Your task to perform on an android device: Find coffee shops on Maps Image 0: 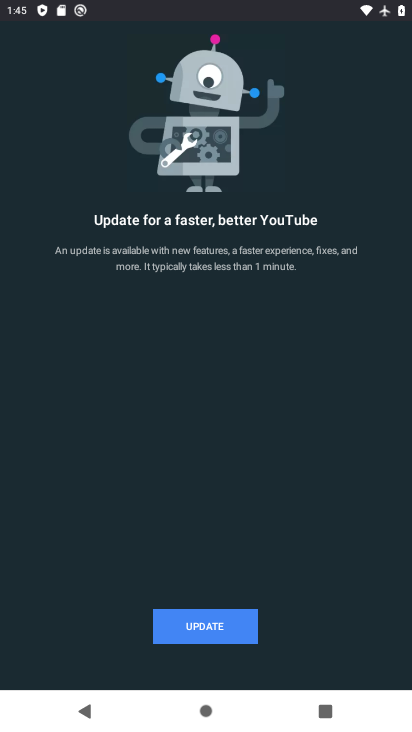
Step 0: press home button
Your task to perform on an android device: Find coffee shops on Maps Image 1: 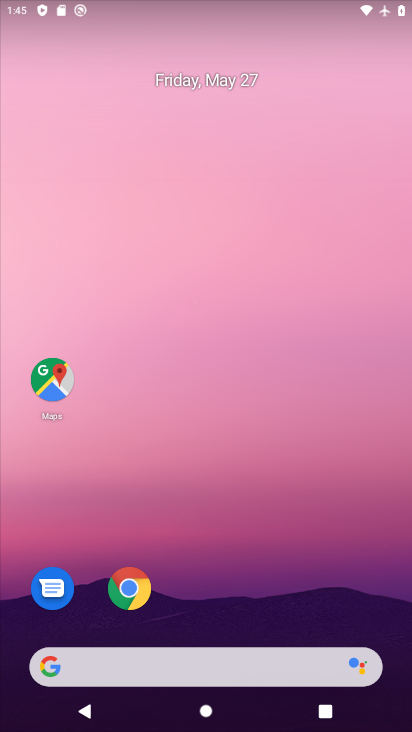
Step 1: click (50, 377)
Your task to perform on an android device: Find coffee shops on Maps Image 2: 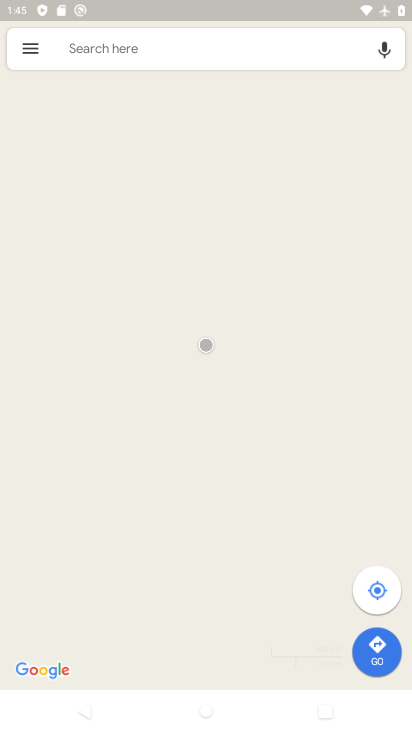
Step 2: click (98, 50)
Your task to perform on an android device: Find coffee shops on Maps Image 3: 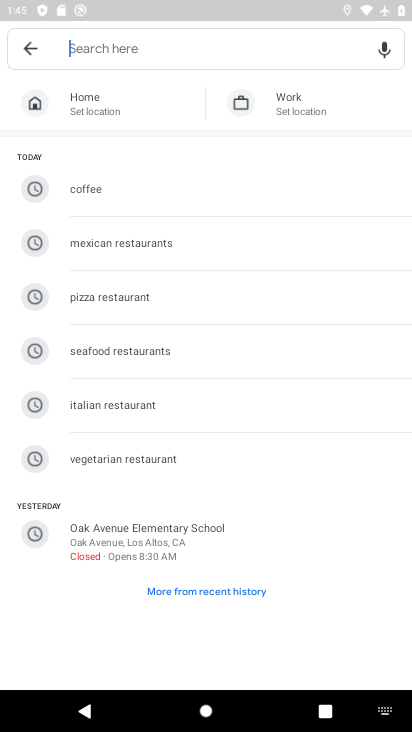
Step 3: type "coffee shop"
Your task to perform on an android device: Find coffee shops on Maps Image 4: 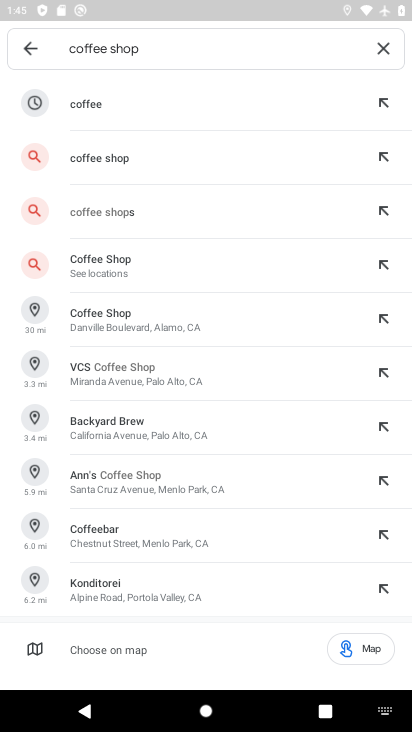
Step 4: click (127, 161)
Your task to perform on an android device: Find coffee shops on Maps Image 5: 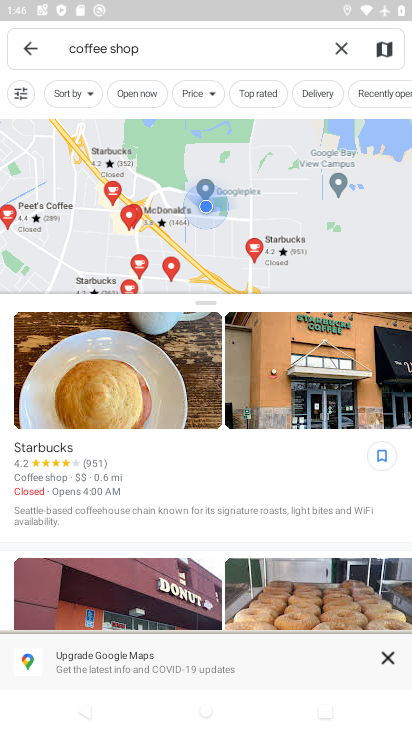
Step 5: task complete